Your task to perform on an android device: Go to Wikipedia Image 0: 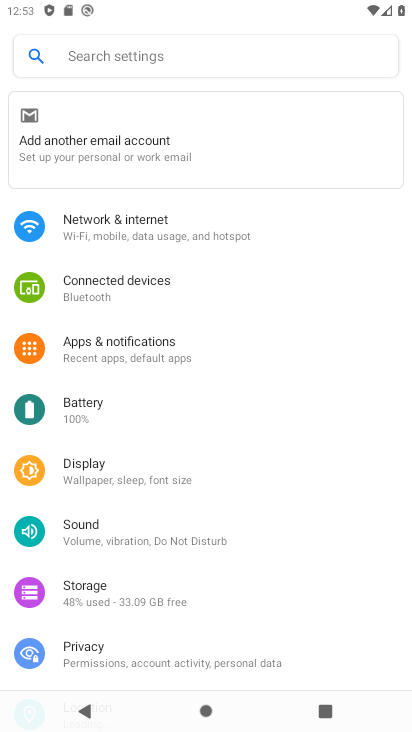
Step 0: press home button
Your task to perform on an android device: Go to Wikipedia Image 1: 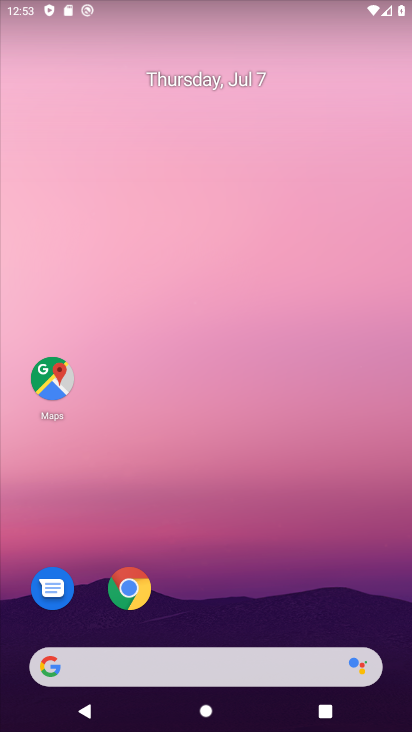
Step 1: click (130, 587)
Your task to perform on an android device: Go to Wikipedia Image 2: 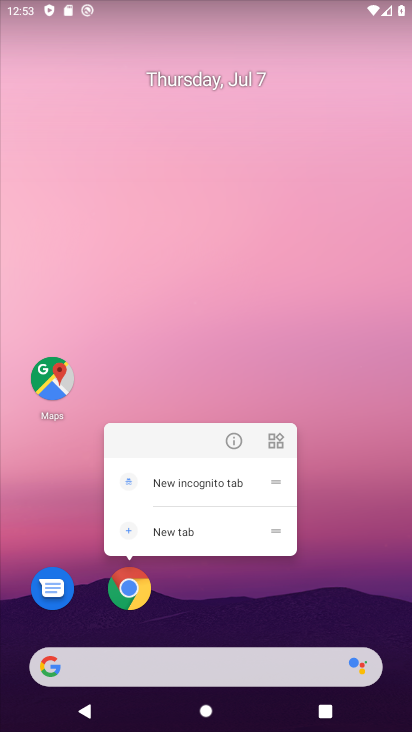
Step 2: click (134, 596)
Your task to perform on an android device: Go to Wikipedia Image 3: 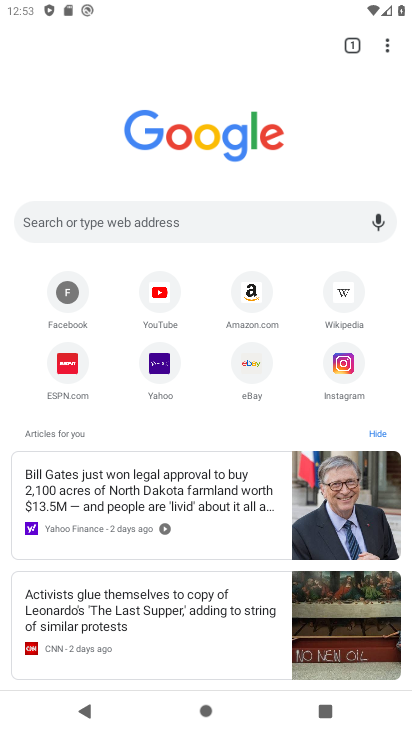
Step 3: click (344, 303)
Your task to perform on an android device: Go to Wikipedia Image 4: 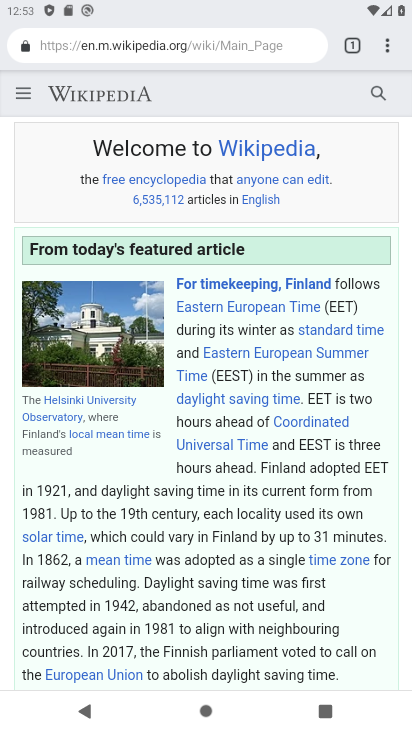
Step 4: task complete